Your task to perform on an android device: turn on sleep mode Image 0: 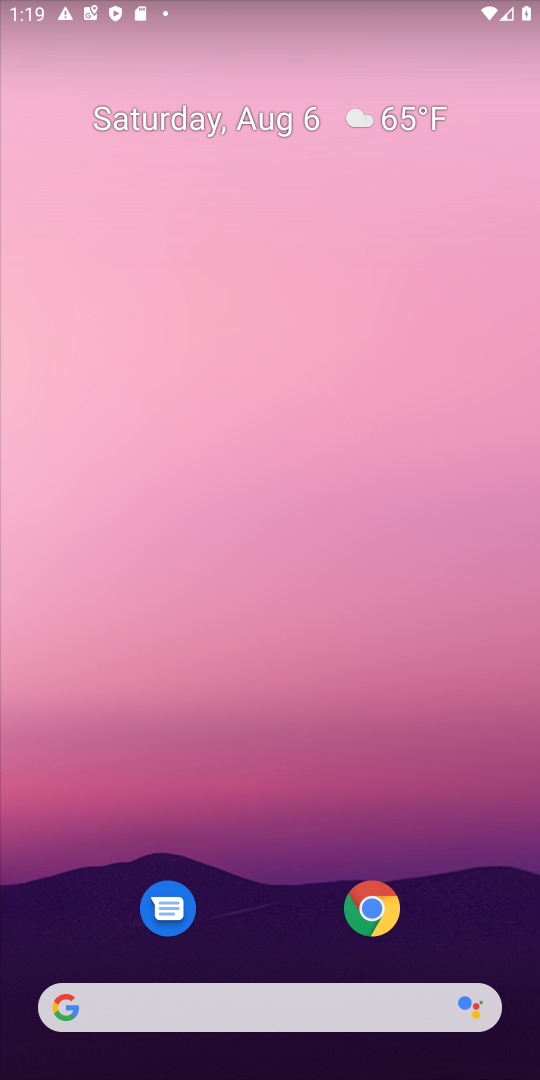
Step 0: drag from (260, 881) to (259, 19)
Your task to perform on an android device: turn on sleep mode Image 1: 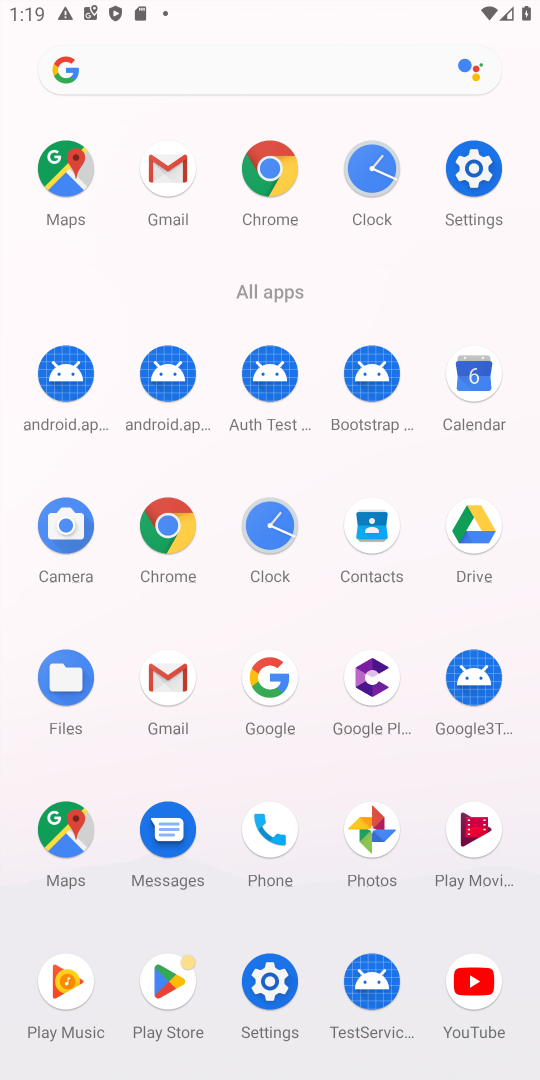
Step 1: click (478, 145)
Your task to perform on an android device: turn on sleep mode Image 2: 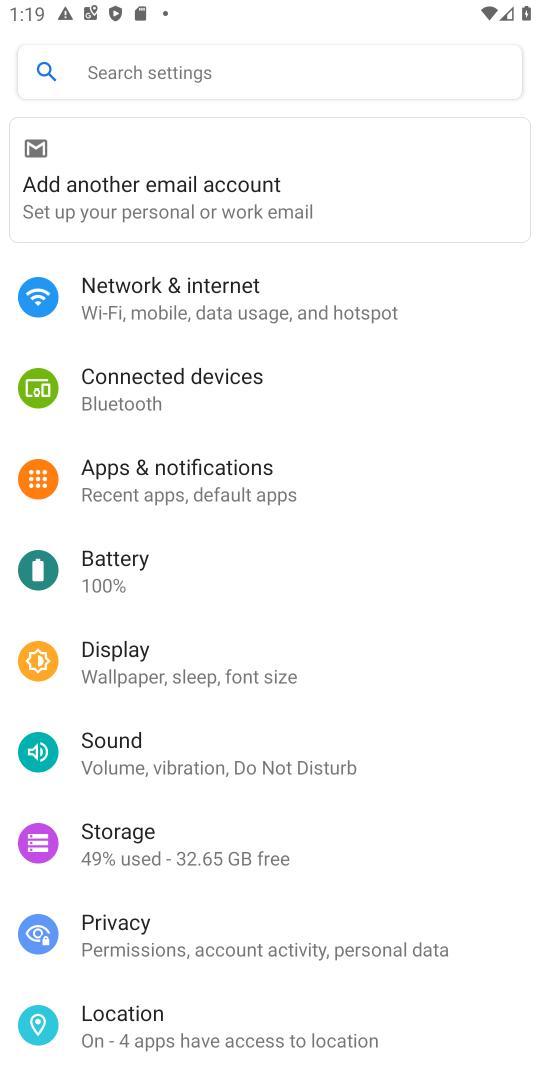
Step 2: click (281, 672)
Your task to perform on an android device: turn on sleep mode Image 3: 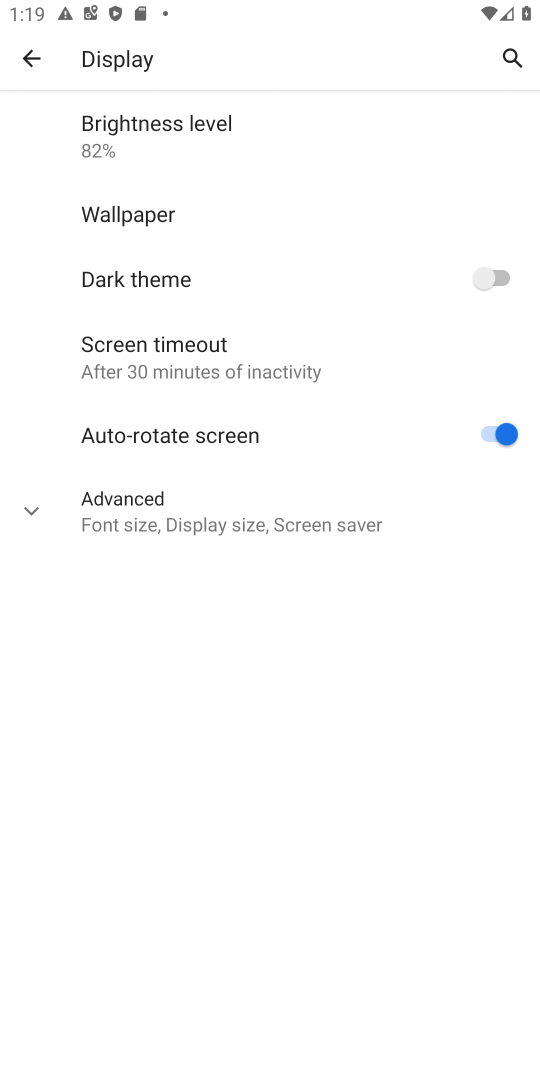
Step 3: click (197, 512)
Your task to perform on an android device: turn on sleep mode Image 4: 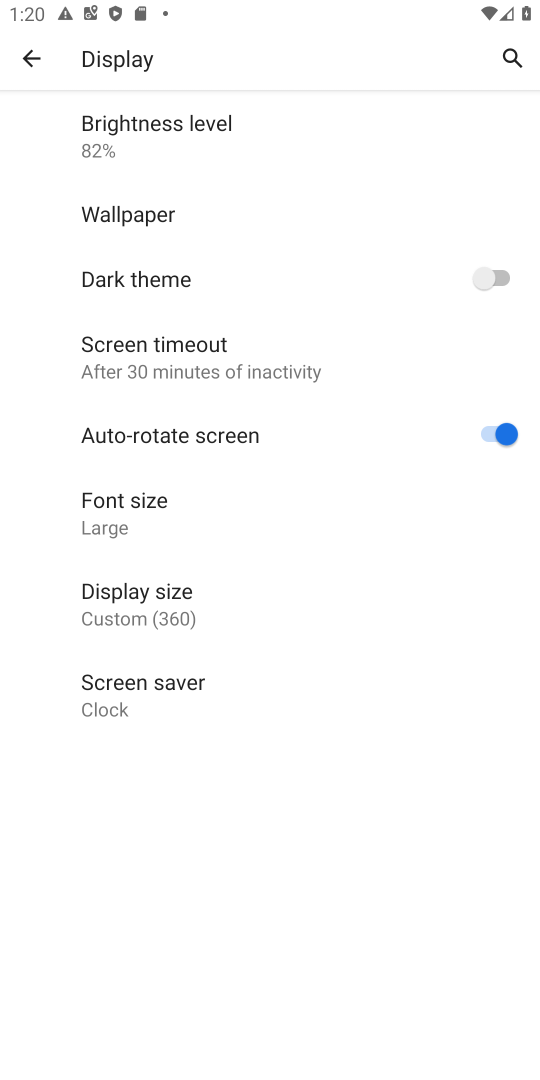
Step 4: task complete